Your task to perform on an android device: open a bookmark in the chrome app Image 0: 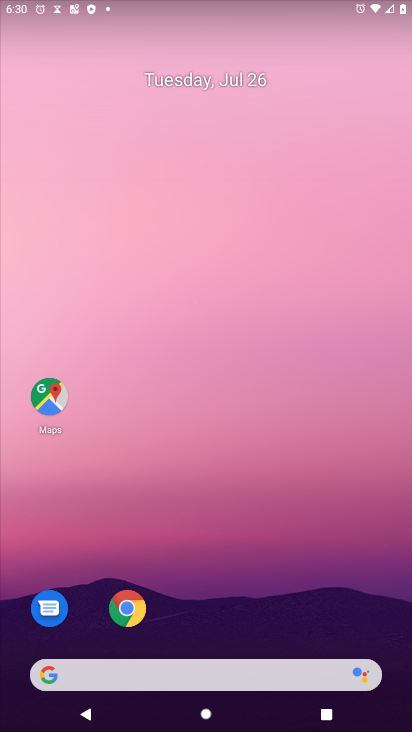
Step 0: press home button
Your task to perform on an android device: open a bookmark in the chrome app Image 1: 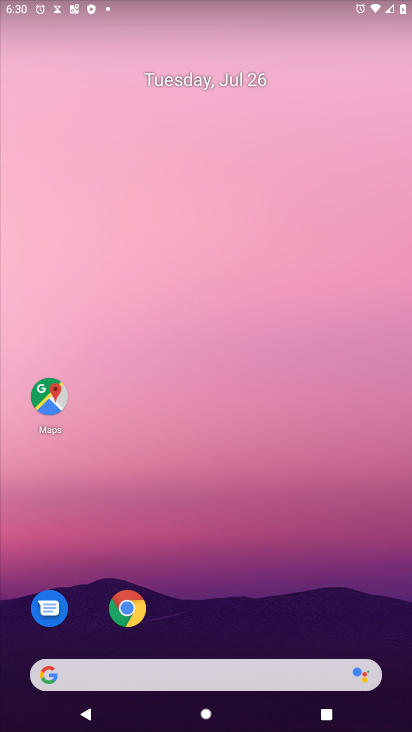
Step 1: drag from (194, 636) to (220, 156)
Your task to perform on an android device: open a bookmark in the chrome app Image 2: 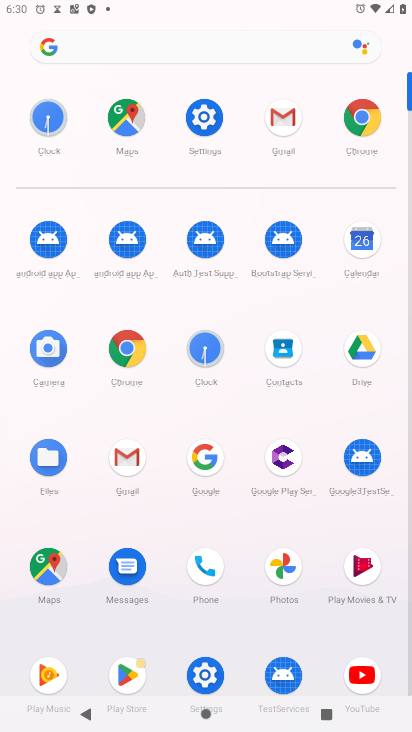
Step 2: click (351, 119)
Your task to perform on an android device: open a bookmark in the chrome app Image 3: 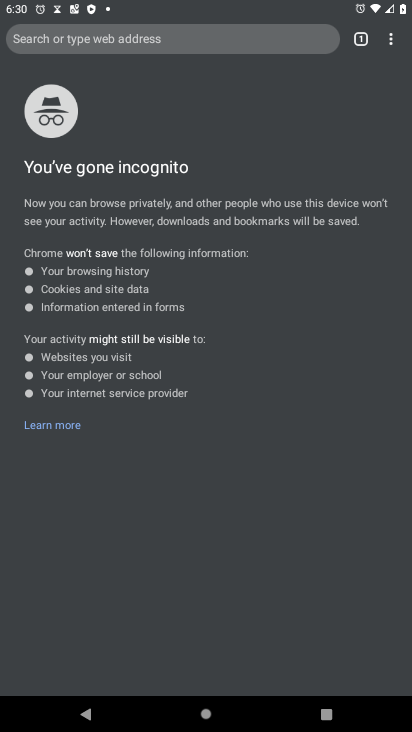
Step 3: drag from (395, 48) to (285, 143)
Your task to perform on an android device: open a bookmark in the chrome app Image 4: 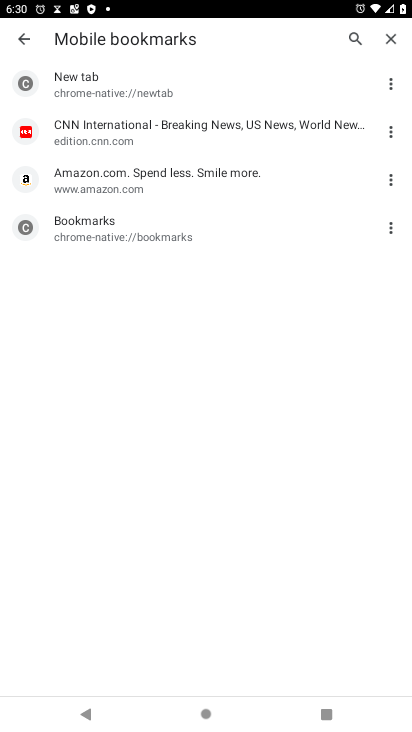
Step 4: click (175, 134)
Your task to perform on an android device: open a bookmark in the chrome app Image 5: 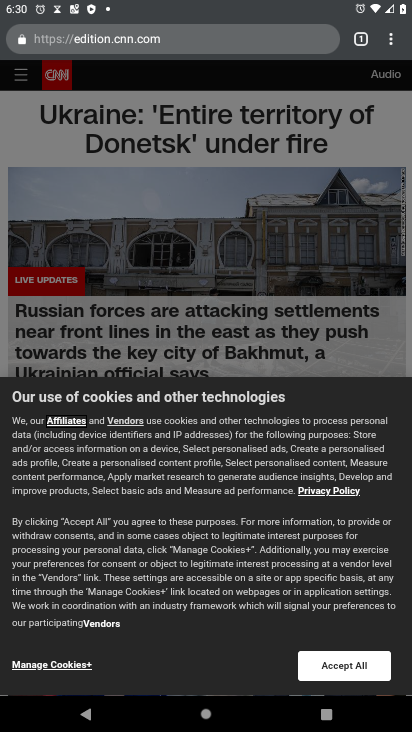
Step 5: click (369, 677)
Your task to perform on an android device: open a bookmark in the chrome app Image 6: 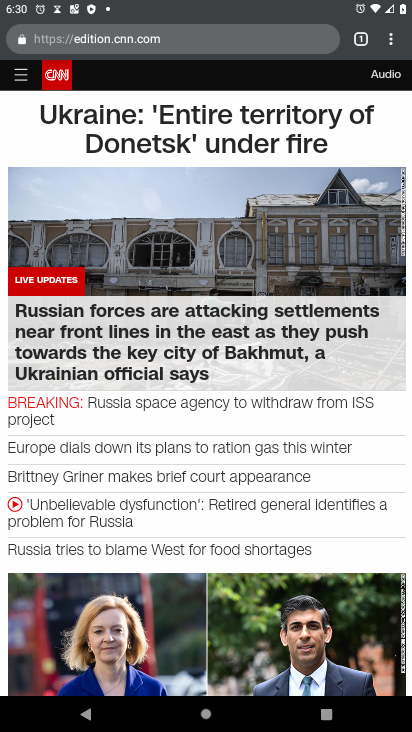
Step 6: task complete